Your task to perform on an android device: Find coffee shops on Maps Image 0: 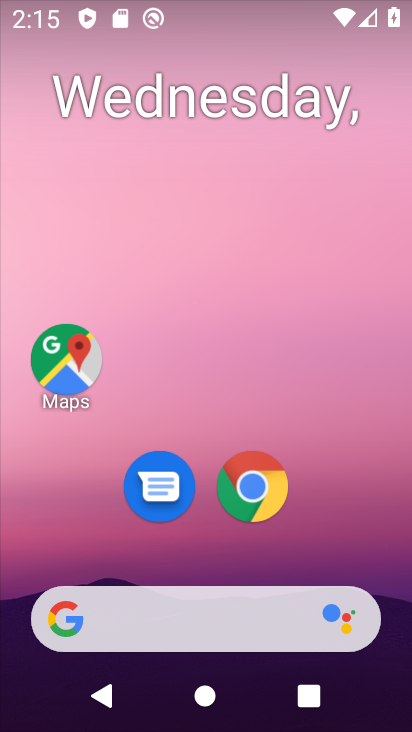
Step 0: click (83, 366)
Your task to perform on an android device: Find coffee shops on Maps Image 1: 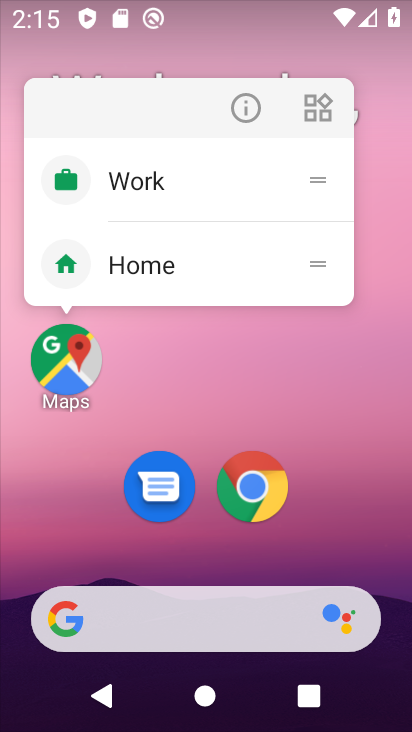
Step 1: click (78, 371)
Your task to perform on an android device: Find coffee shops on Maps Image 2: 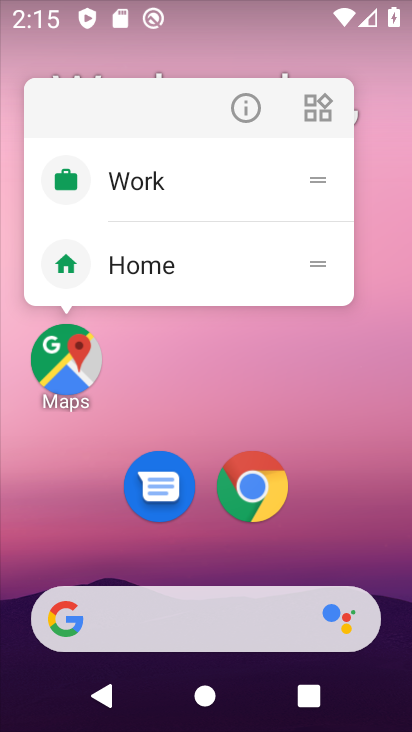
Step 2: click (60, 362)
Your task to perform on an android device: Find coffee shops on Maps Image 3: 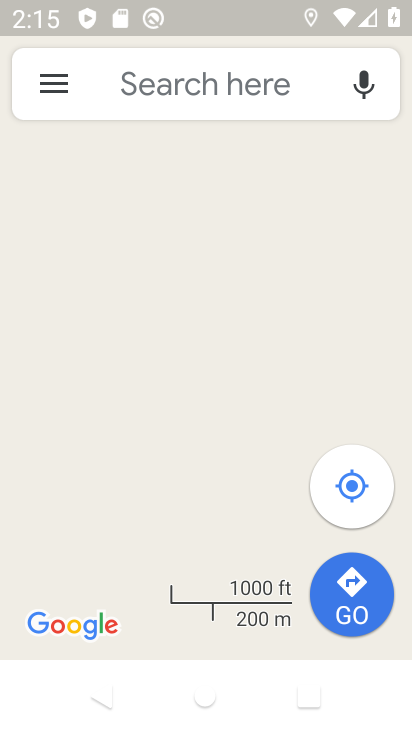
Step 3: click (158, 95)
Your task to perform on an android device: Find coffee shops on Maps Image 4: 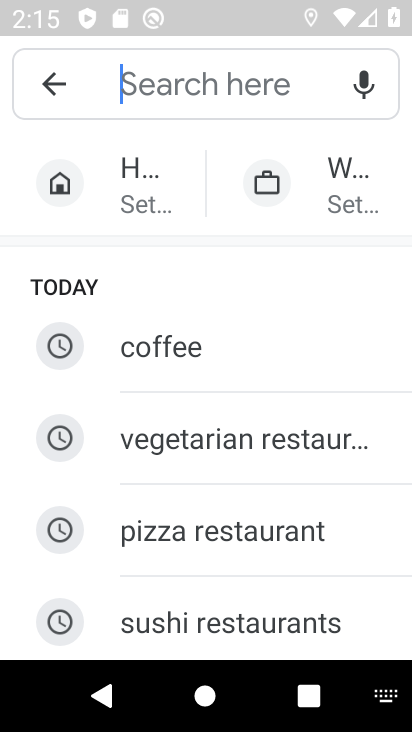
Step 4: type "coffee shop"
Your task to perform on an android device: Find coffee shops on Maps Image 5: 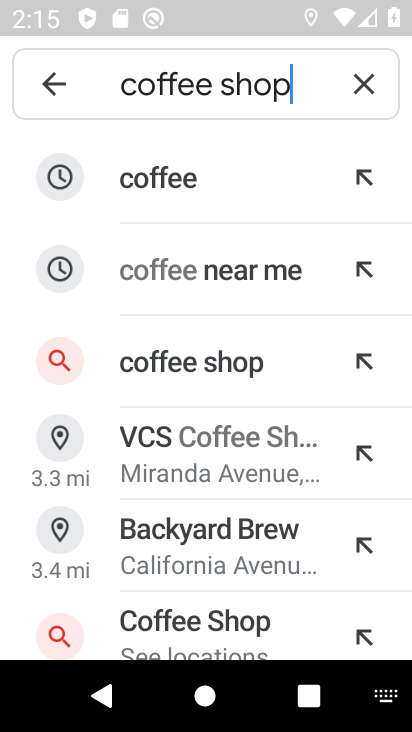
Step 5: click (219, 377)
Your task to perform on an android device: Find coffee shops on Maps Image 6: 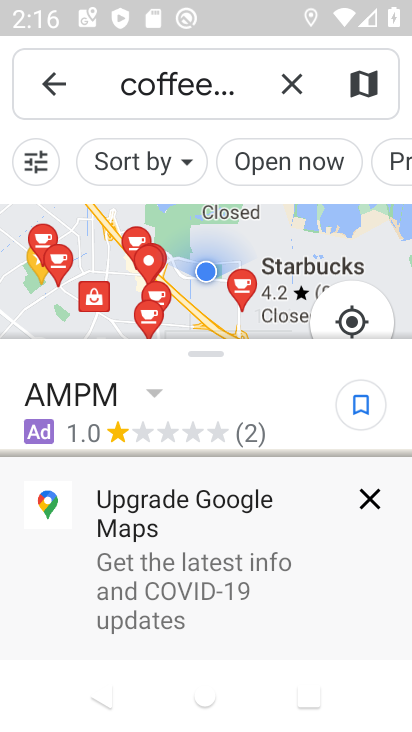
Step 6: task complete